Your task to perform on an android device: change keyboard looks Image 0: 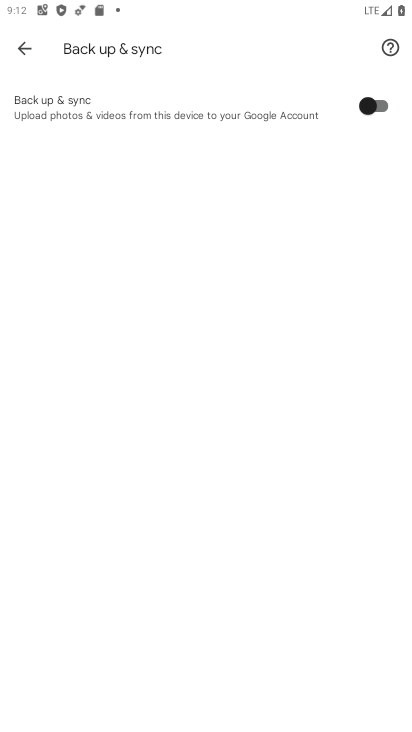
Step 0: press home button
Your task to perform on an android device: change keyboard looks Image 1: 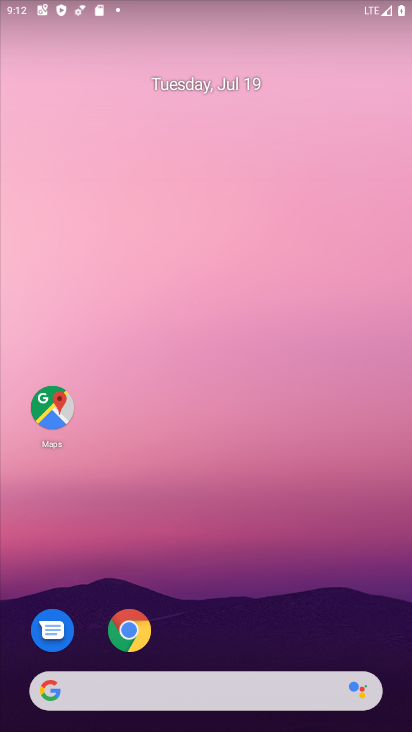
Step 1: drag from (235, 612) to (400, 277)
Your task to perform on an android device: change keyboard looks Image 2: 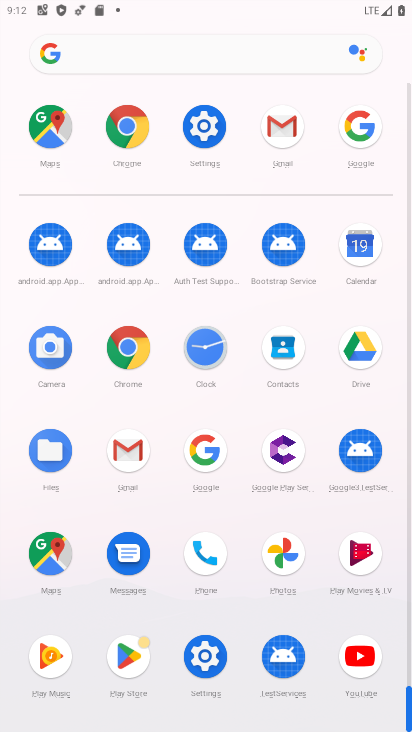
Step 2: click (202, 133)
Your task to perform on an android device: change keyboard looks Image 3: 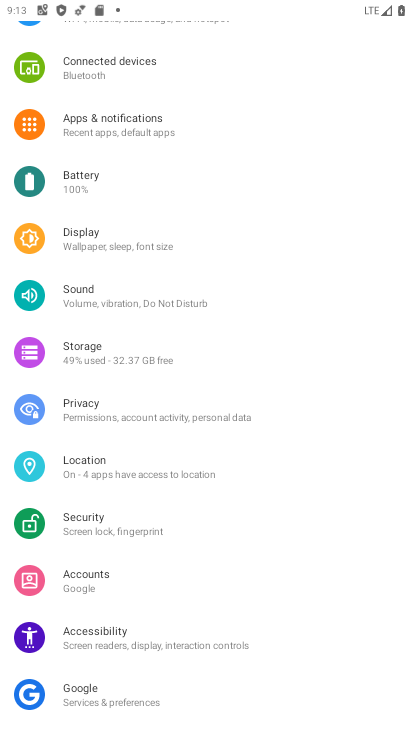
Step 3: drag from (154, 587) to (150, 210)
Your task to perform on an android device: change keyboard looks Image 4: 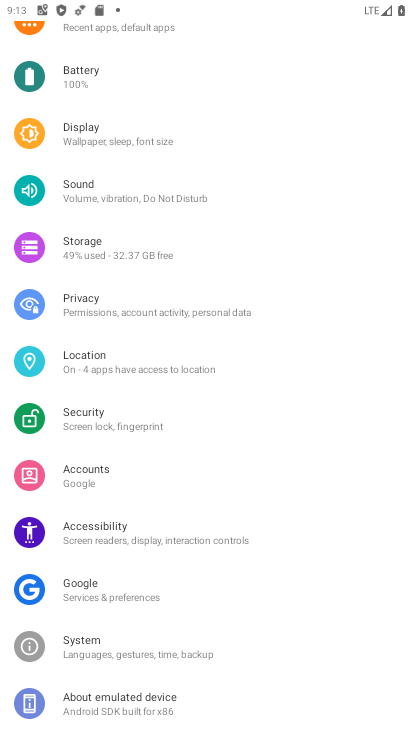
Step 4: click (109, 649)
Your task to perform on an android device: change keyboard looks Image 5: 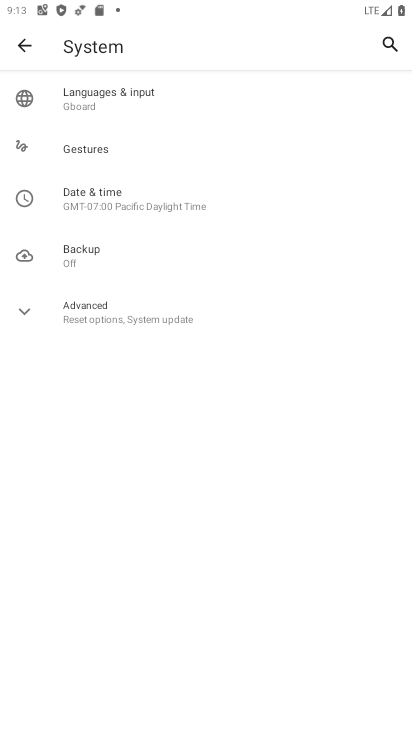
Step 5: click (114, 108)
Your task to perform on an android device: change keyboard looks Image 6: 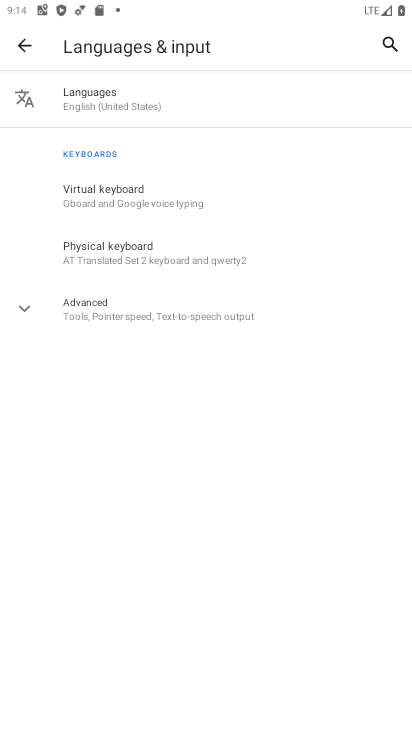
Step 6: click (136, 199)
Your task to perform on an android device: change keyboard looks Image 7: 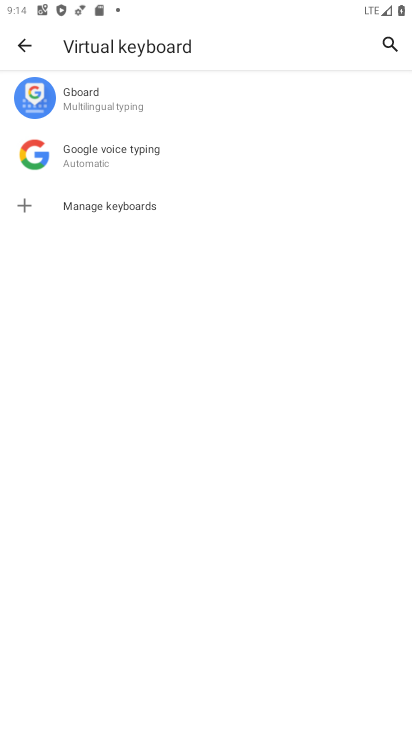
Step 7: click (119, 105)
Your task to perform on an android device: change keyboard looks Image 8: 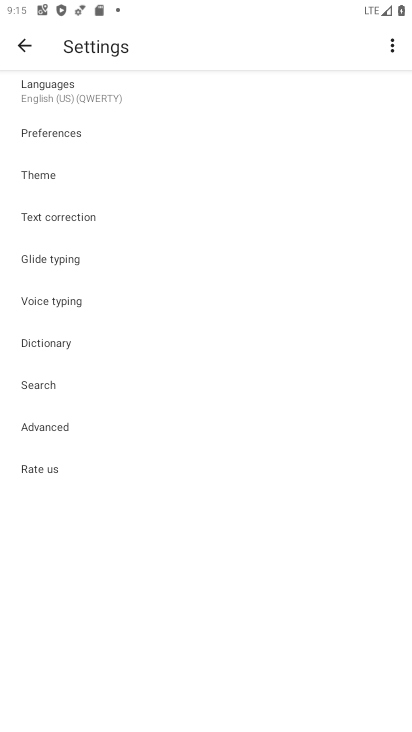
Step 8: click (79, 177)
Your task to perform on an android device: change keyboard looks Image 9: 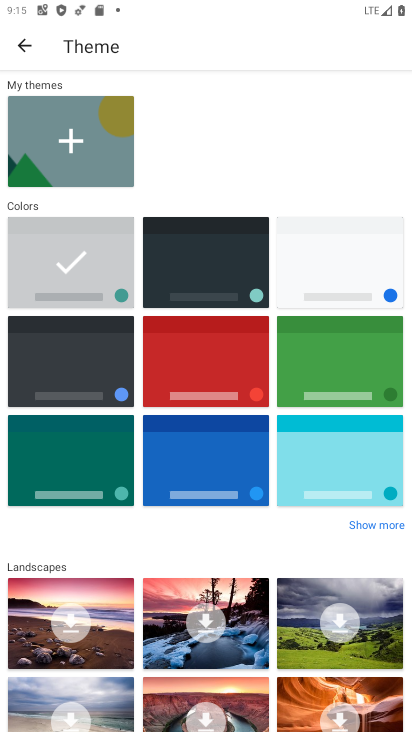
Step 9: click (330, 385)
Your task to perform on an android device: change keyboard looks Image 10: 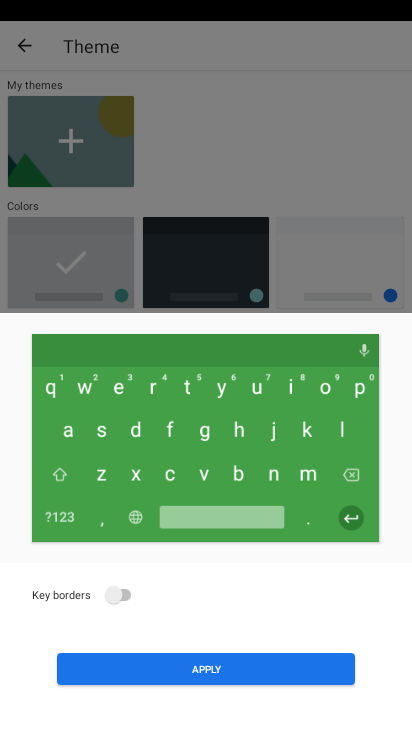
Step 10: click (288, 675)
Your task to perform on an android device: change keyboard looks Image 11: 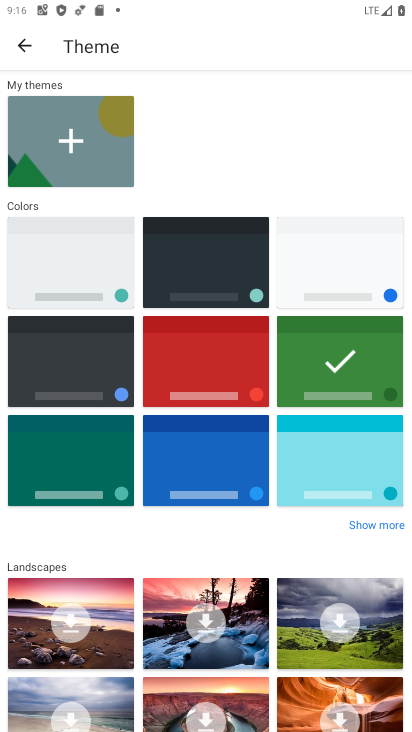
Step 11: task complete